Your task to perform on an android device: turn off notifications settings in the gmail app Image 0: 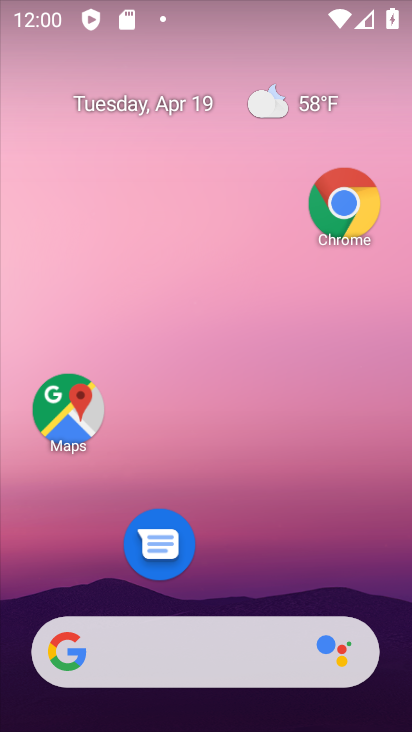
Step 0: drag from (262, 578) to (292, 2)
Your task to perform on an android device: turn off notifications settings in the gmail app Image 1: 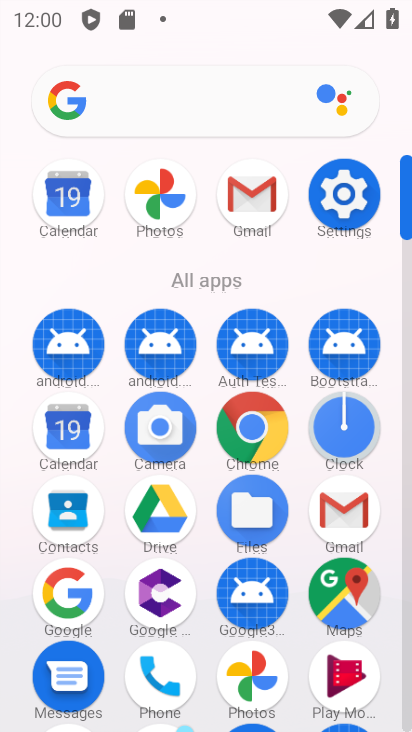
Step 1: click (260, 190)
Your task to perform on an android device: turn off notifications settings in the gmail app Image 2: 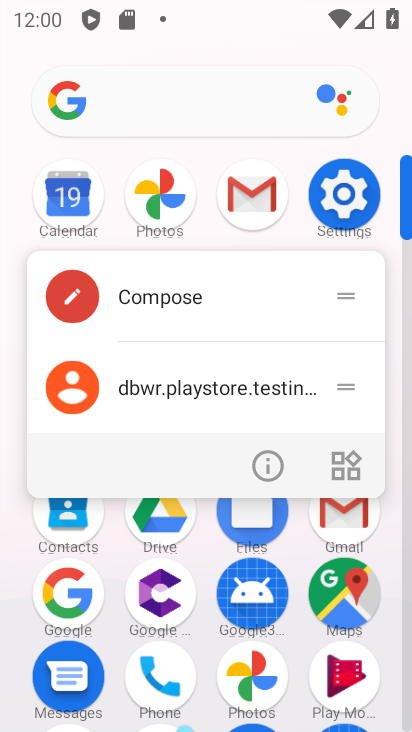
Step 2: click (247, 195)
Your task to perform on an android device: turn off notifications settings in the gmail app Image 3: 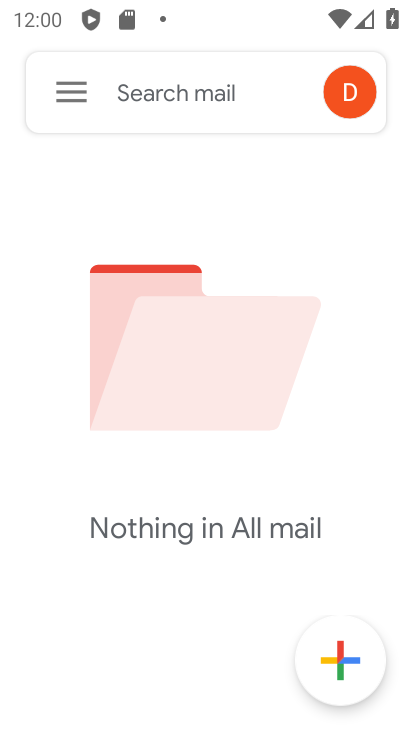
Step 3: click (72, 95)
Your task to perform on an android device: turn off notifications settings in the gmail app Image 4: 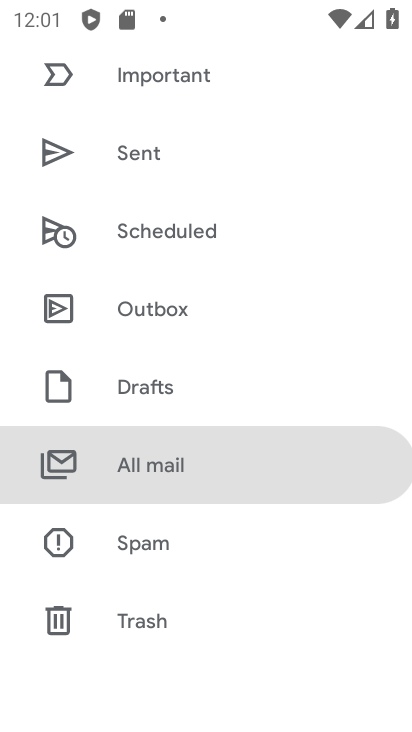
Step 4: drag from (162, 535) to (162, 125)
Your task to perform on an android device: turn off notifications settings in the gmail app Image 5: 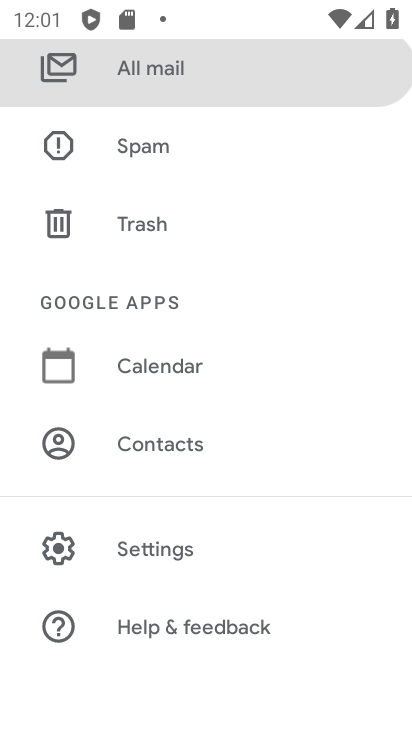
Step 5: click (166, 538)
Your task to perform on an android device: turn off notifications settings in the gmail app Image 6: 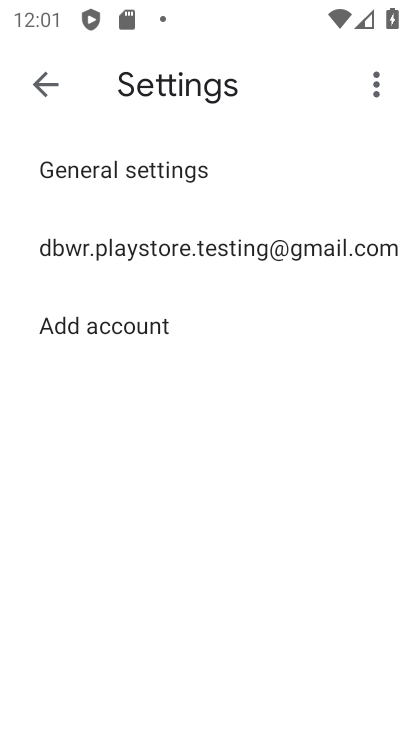
Step 6: click (157, 181)
Your task to perform on an android device: turn off notifications settings in the gmail app Image 7: 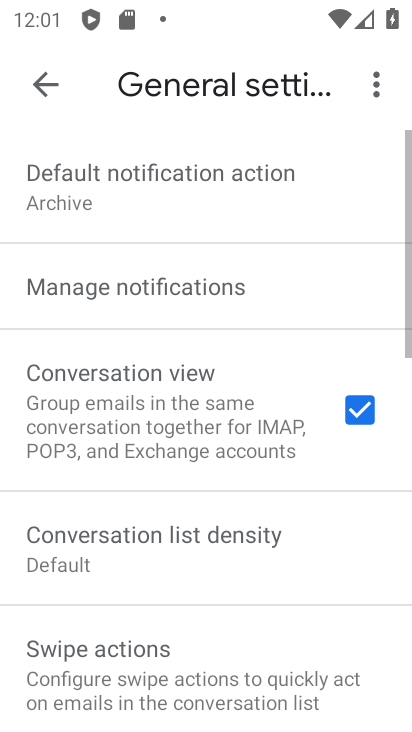
Step 7: click (165, 292)
Your task to perform on an android device: turn off notifications settings in the gmail app Image 8: 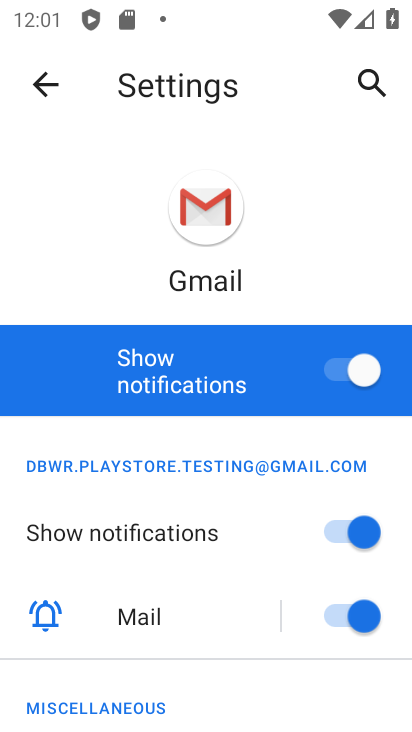
Step 8: click (341, 370)
Your task to perform on an android device: turn off notifications settings in the gmail app Image 9: 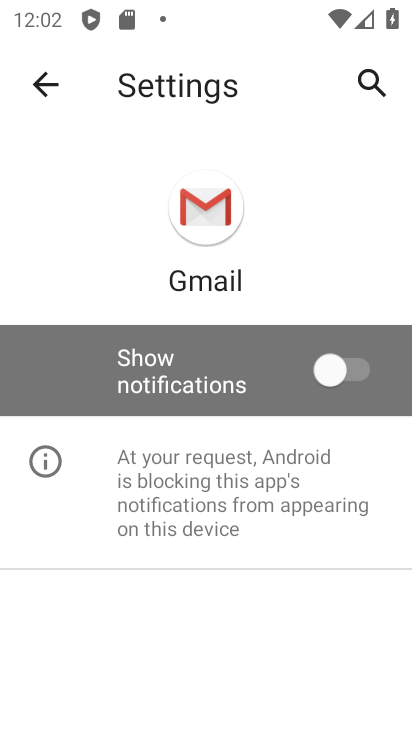
Step 9: task complete